Your task to perform on an android device: Do I have any events this weekend? Image 0: 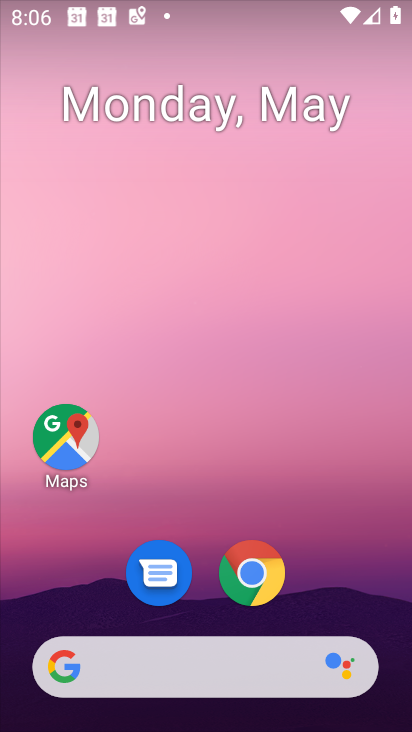
Step 0: drag from (187, 539) to (200, 202)
Your task to perform on an android device: Do I have any events this weekend? Image 1: 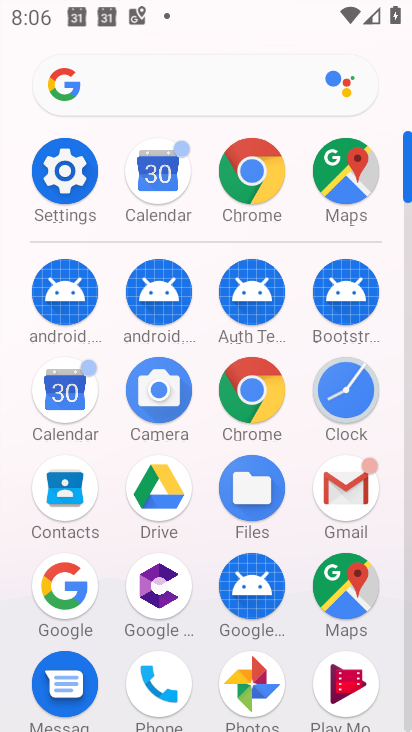
Step 1: click (58, 390)
Your task to perform on an android device: Do I have any events this weekend? Image 2: 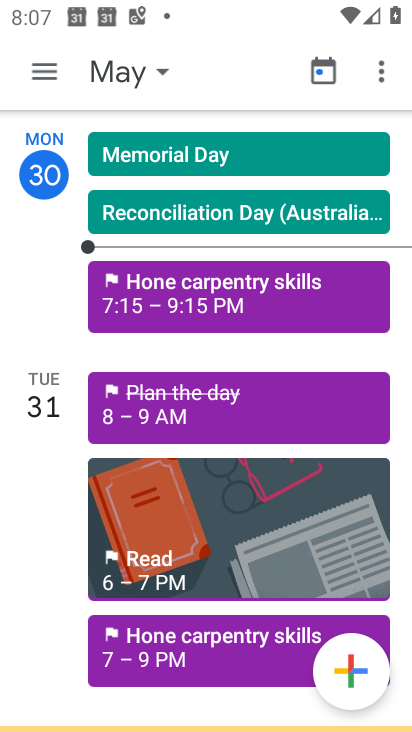
Step 2: task complete